Your task to perform on an android device: turn pop-ups on in chrome Image 0: 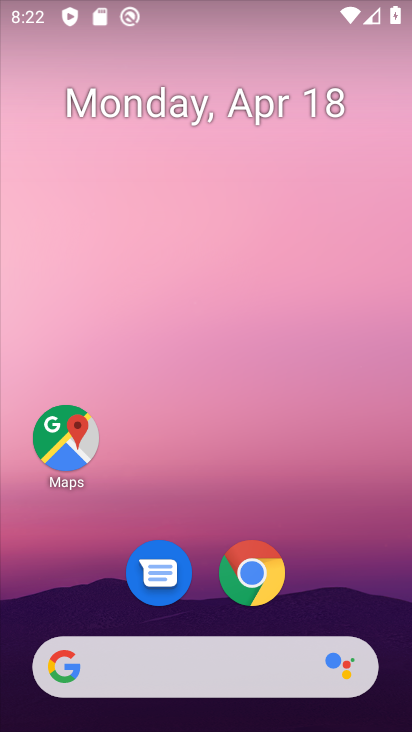
Step 0: click (281, 577)
Your task to perform on an android device: turn pop-ups on in chrome Image 1: 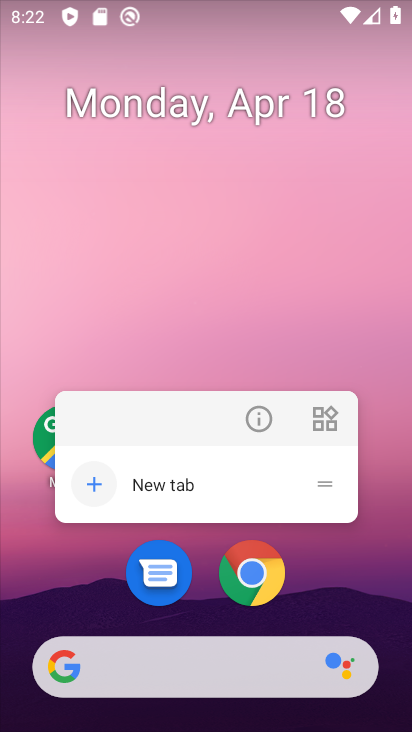
Step 1: click (264, 576)
Your task to perform on an android device: turn pop-ups on in chrome Image 2: 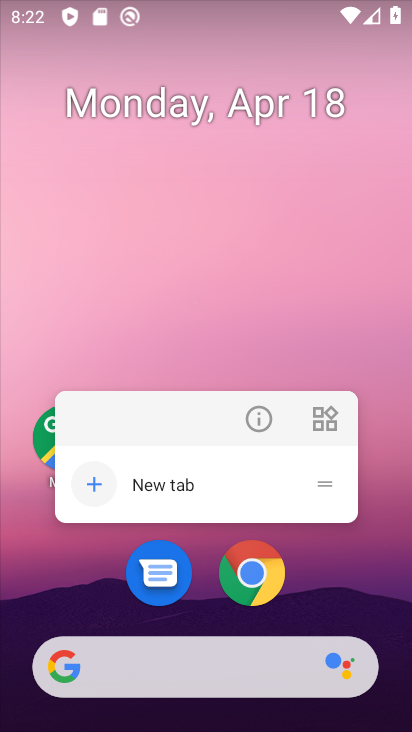
Step 2: click (271, 589)
Your task to perform on an android device: turn pop-ups on in chrome Image 3: 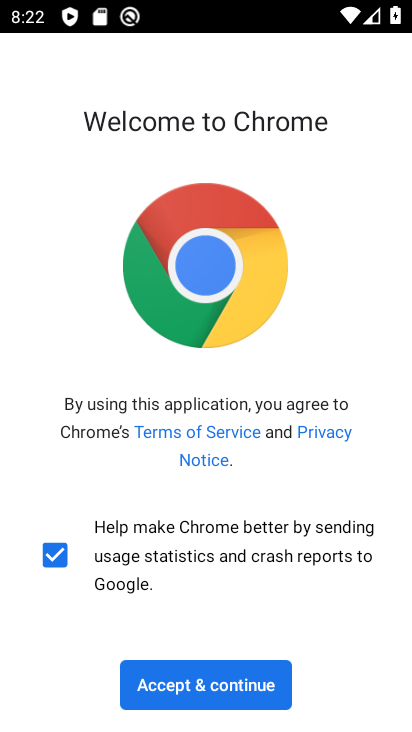
Step 3: click (233, 674)
Your task to perform on an android device: turn pop-ups on in chrome Image 4: 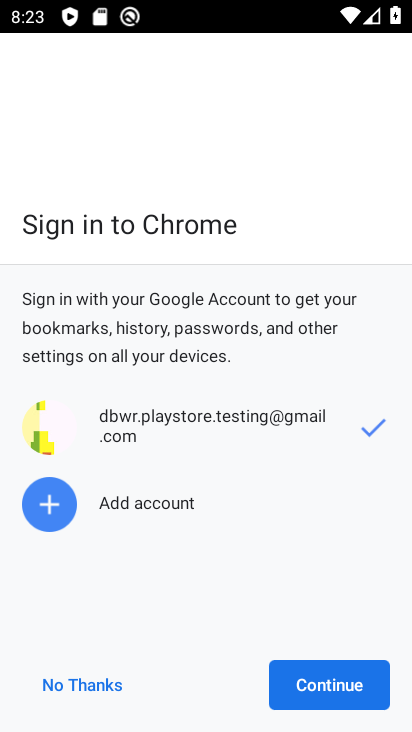
Step 4: click (349, 681)
Your task to perform on an android device: turn pop-ups on in chrome Image 5: 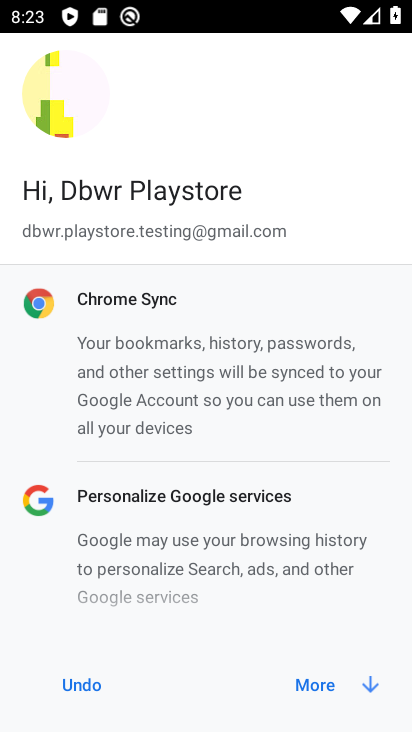
Step 5: click (308, 686)
Your task to perform on an android device: turn pop-ups on in chrome Image 6: 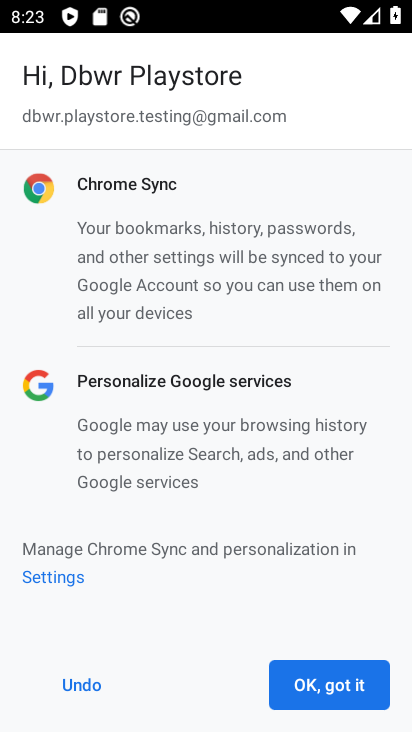
Step 6: click (344, 691)
Your task to perform on an android device: turn pop-ups on in chrome Image 7: 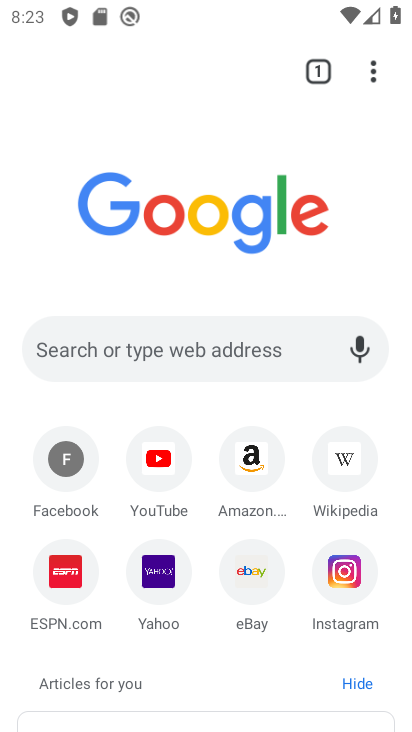
Step 7: click (374, 72)
Your task to perform on an android device: turn pop-ups on in chrome Image 8: 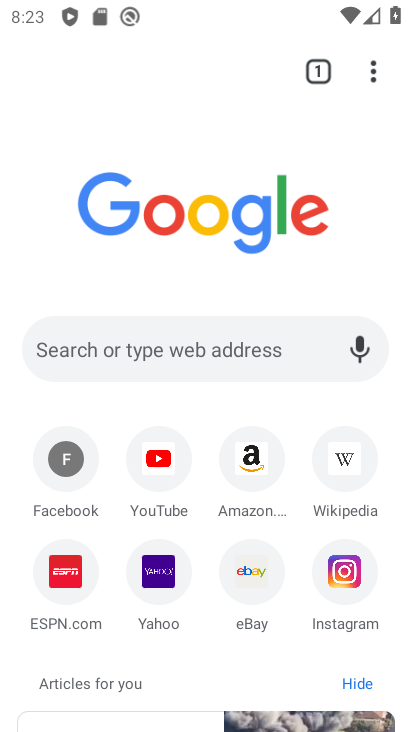
Step 8: click (372, 80)
Your task to perform on an android device: turn pop-ups on in chrome Image 9: 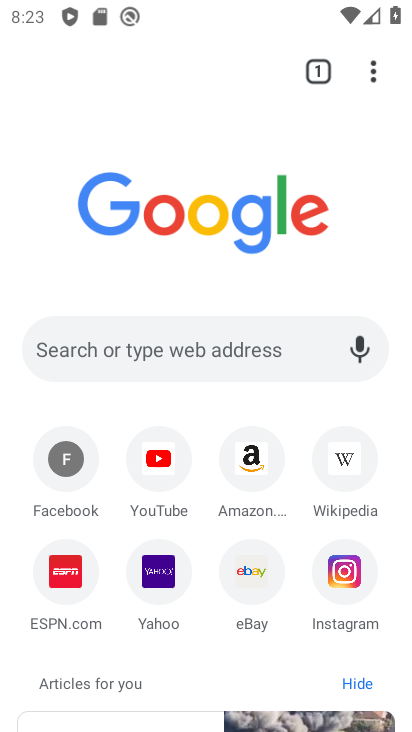
Step 9: drag from (372, 80) to (201, 612)
Your task to perform on an android device: turn pop-ups on in chrome Image 10: 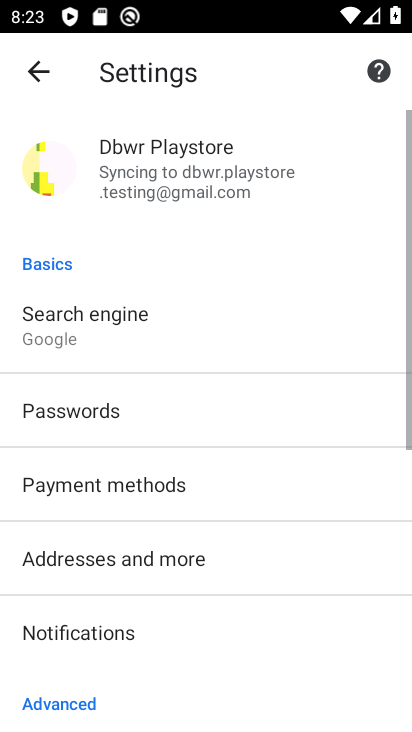
Step 10: drag from (248, 582) to (297, 255)
Your task to perform on an android device: turn pop-ups on in chrome Image 11: 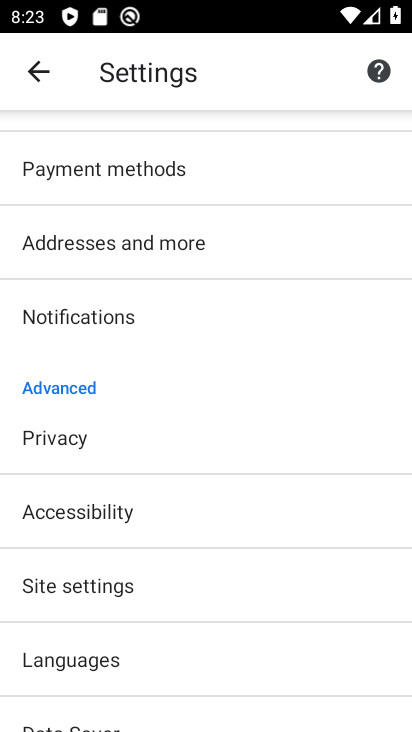
Step 11: drag from (214, 636) to (276, 218)
Your task to perform on an android device: turn pop-ups on in chrome Image 12: 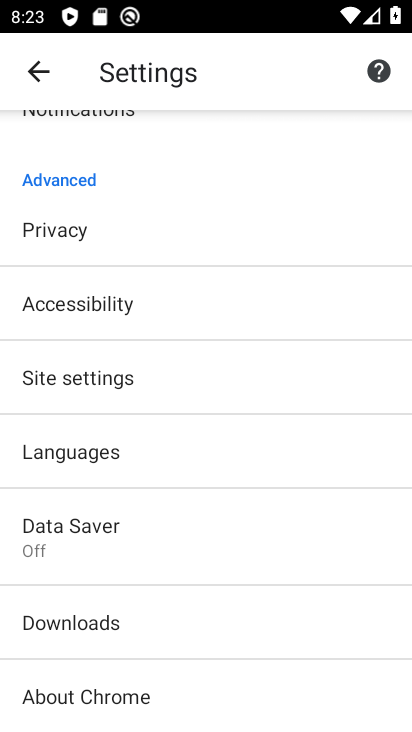
Step 12: drag from (210, 675) to (244, 462)
Your task to perform on an android device: turn pop-ups on in chrome Image 13: 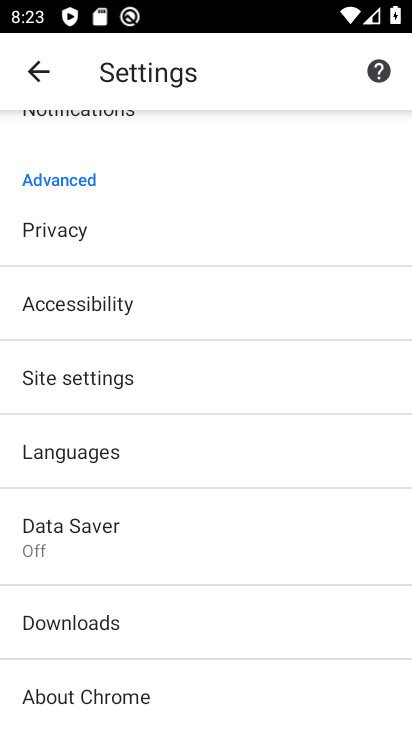
Step 13: click (139, 383)
Your task to perform on an android device: turn pop-ups on in chrome Image 14: 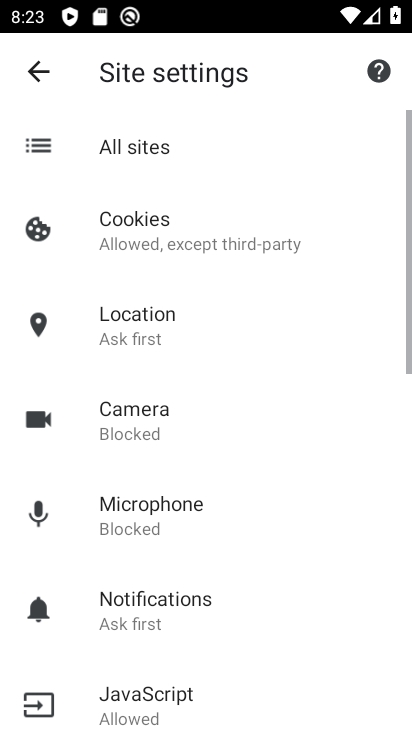
Step 14: drag from (230, 569) to (279, 285)
Your task to perform on an android device: turn pop-ups on in chrome Image 15: 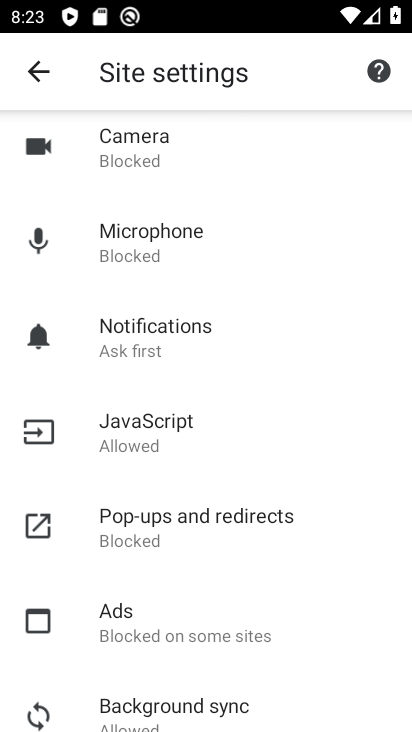
Step 15: click (257, 532)
Your task to perform on an android device: turn pop-ups on in chrome Image 16: 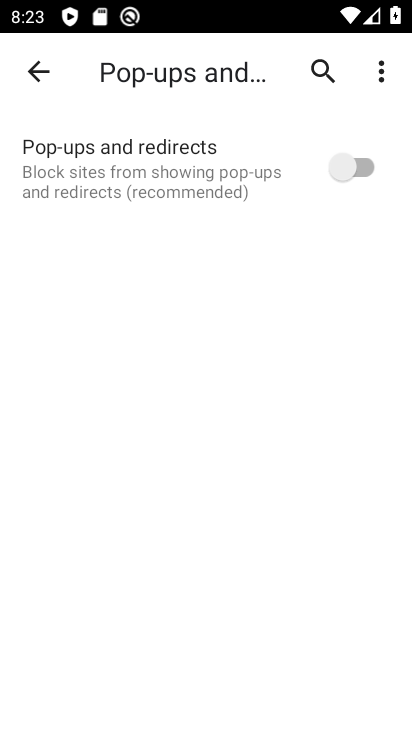
Step 16: click (355, 157)
Your task to perform on an android device: turn pop-ups on in chrome Image 17: 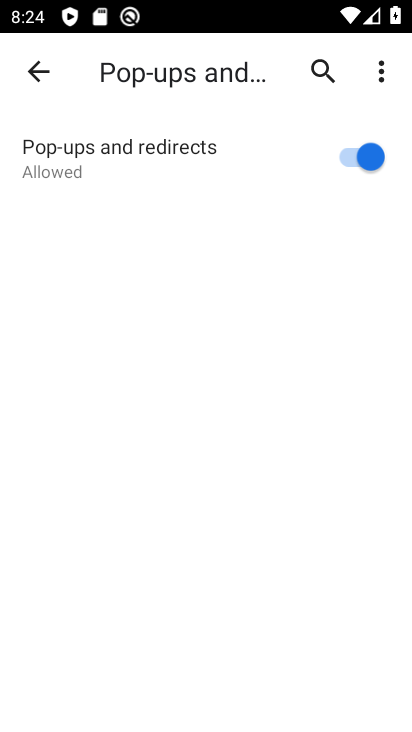
Step 17: task complete